Your task to perform on an android device: see sites visited before in the chrome app Image 0: 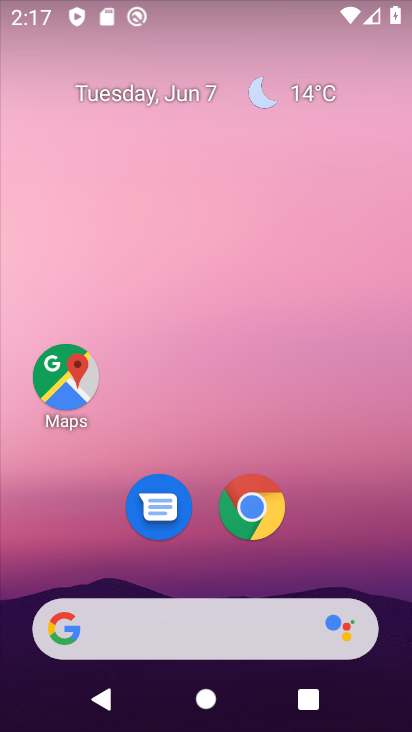
Step 0: click (255, 506)
Your task to perform on an android device: see sites visited before in the chrome app Image 1: 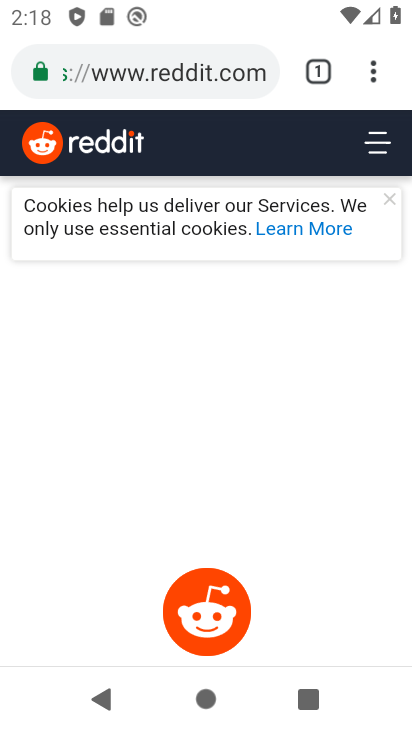
Step 1: click (378, 65)
Your task to perform on an android device: see sites visited before in the chrome app Image 2: 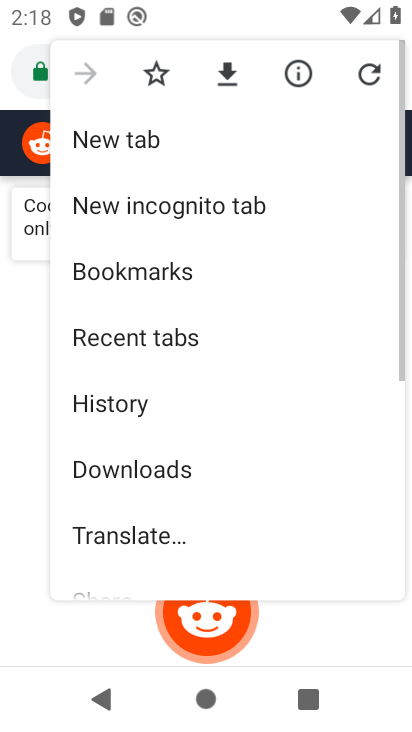
Step 2: drag from (173, 516) to (208, 126)
Your task to perform on an android device: see sites visited before in the chrome app Image 3: 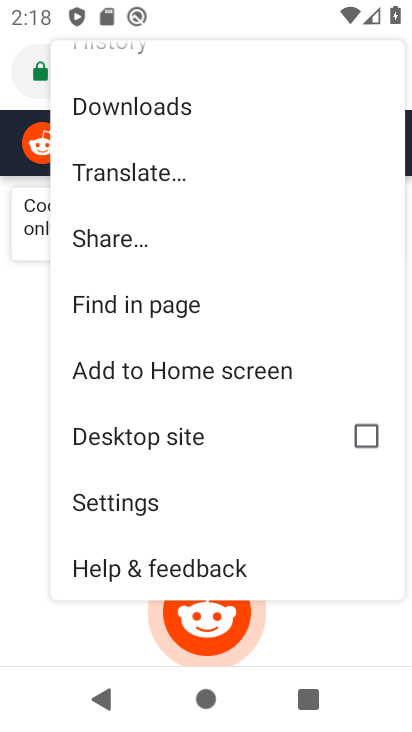
Step 3: drag from (201, 128) to (174, 459)
Your task to perform on an android device: see sites visited before in the chrome app Image 4: 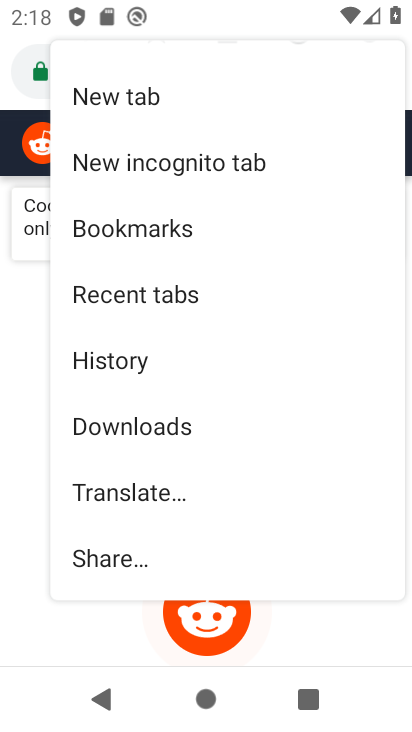
Step 4: click (150, 357)
Your task to perform on an android device: see sites visited before in the chrome app Image 5: 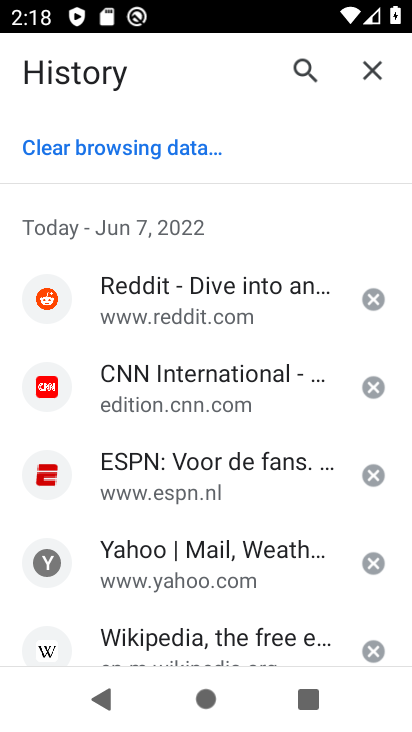
Step 5: task complete